Your task to perform on an android device: Open Google Chrome Image 0: 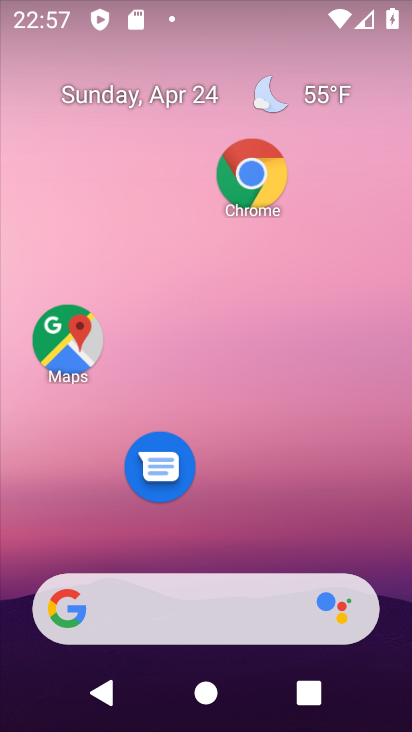
Step 0: click (251, 177)
Your task to perform on an android device: Open Google Chrome Image 1: 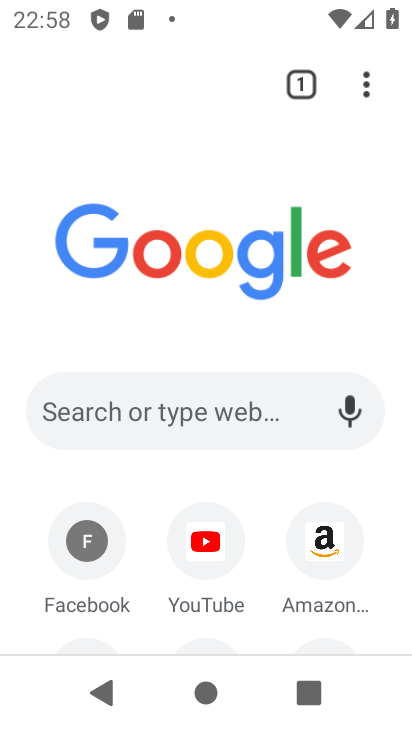
Step 1: task complete